Your task to perform on an android device: move an email to a new category in the gmail app Image 0: 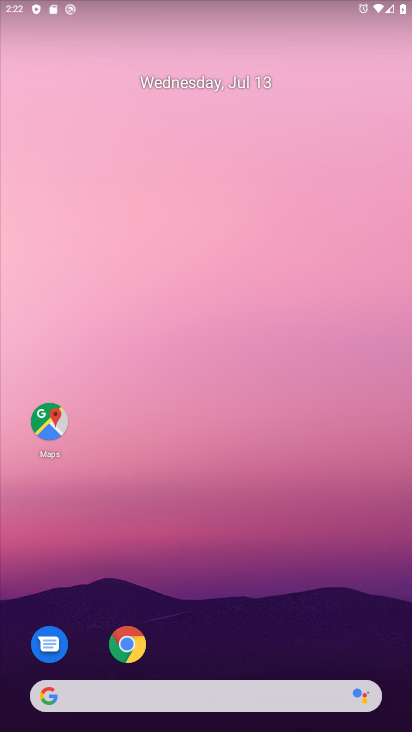
Step 0: drag from (180, 593) to (265, 0)
Your task to perform on an android device: move an email to a new category in the gmail app Image 1: 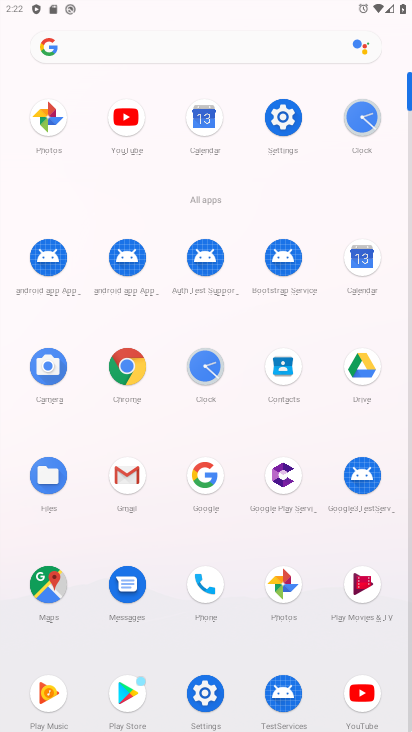
Step 1: click (121, 478)
Your task to perform on an android device: move an email to a new category in the gmail app Image 2: 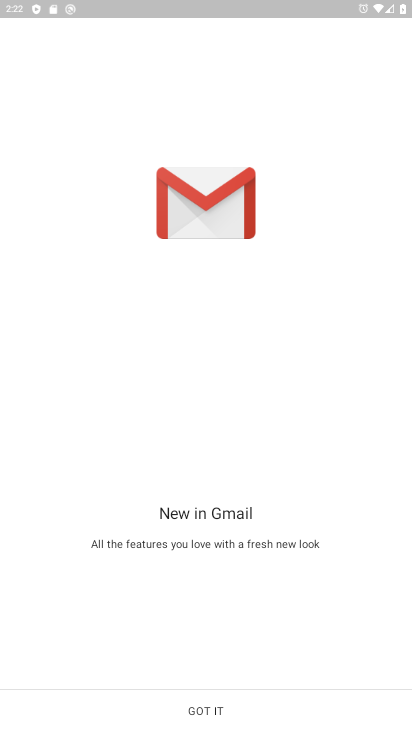
Step 2: click (233, 705)
Your task to perform on an android device: move an email to a new category in the gmail app Image 3: 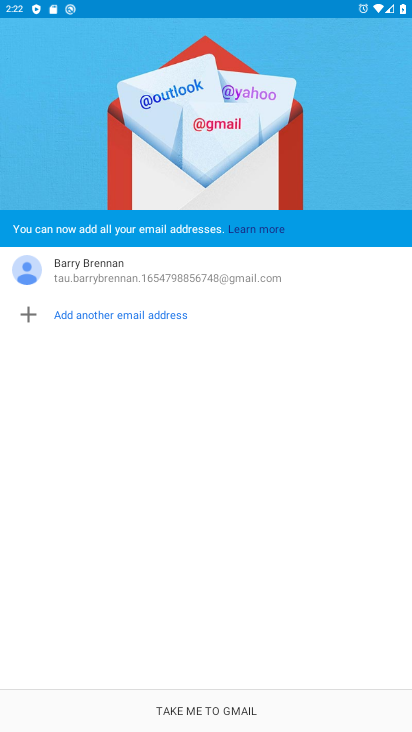
Step 3: click (204, 709)
Your task to perform on an android device: move an email to a new category in the gmail app Image 4: 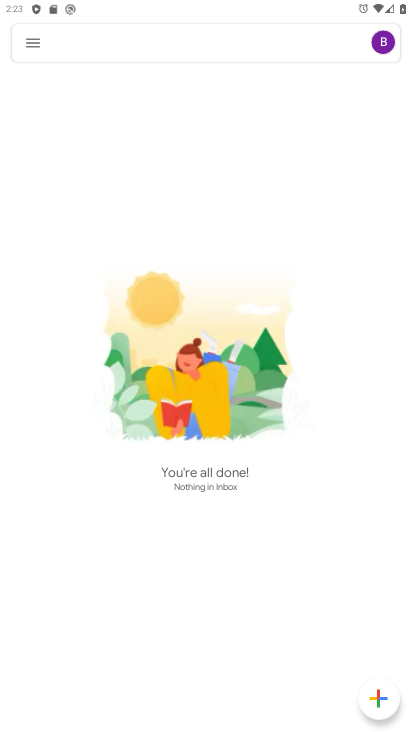
Step 4: click (34, 48)
Your task to perform on an android device: move an email to a new category in the gmail app Image 5: 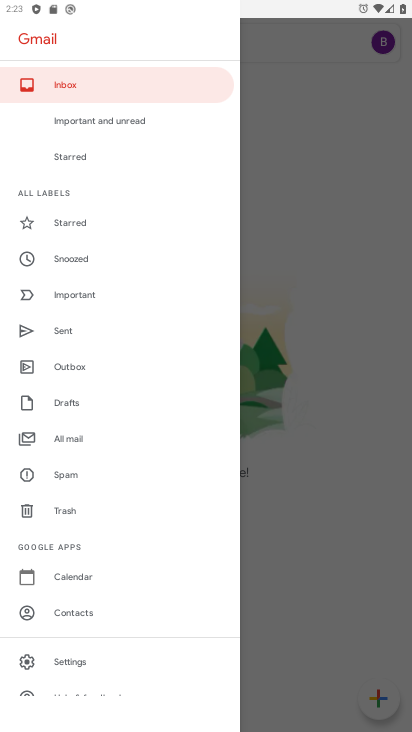
Step 5: click (101, 431)
Your task to perform on an android device: move an email to a new category in the gmail app Image 6: 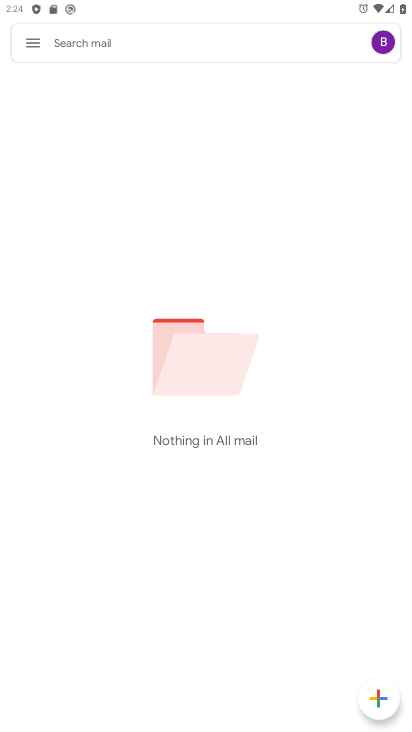
Step 6: task complete